Your task to perform on an android device: make emails show in primary in the gmail app Image 0: 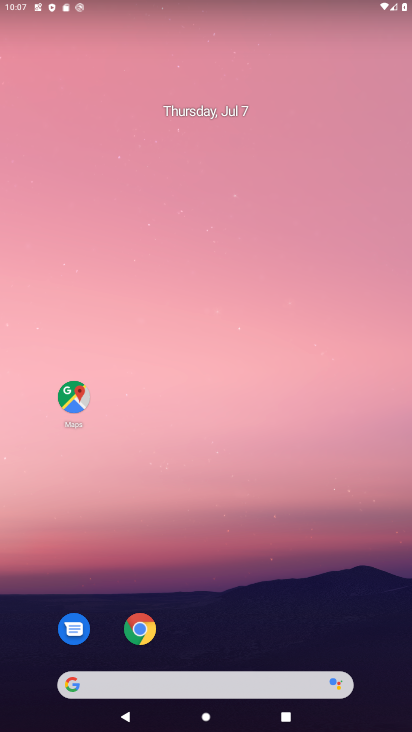
Step 0: drag from (211, 636) to (394, 0)
Your task to perform on an android device: make emails show in primary in the gmail app Image 1: 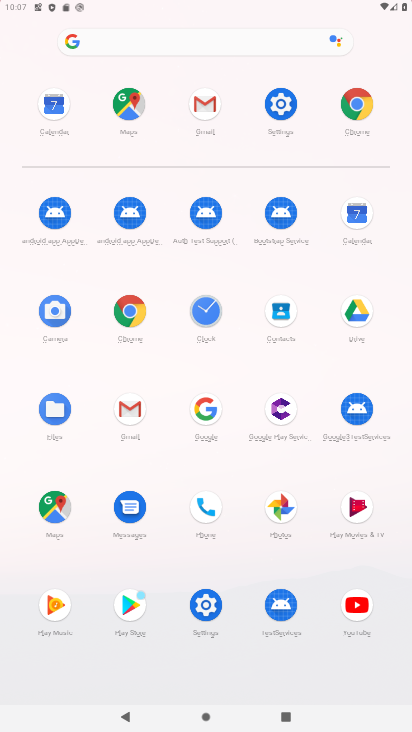
Step 1: click (144, 425)
Your task to perform on an android device: make emails show in primary in the gmail app Image 2: 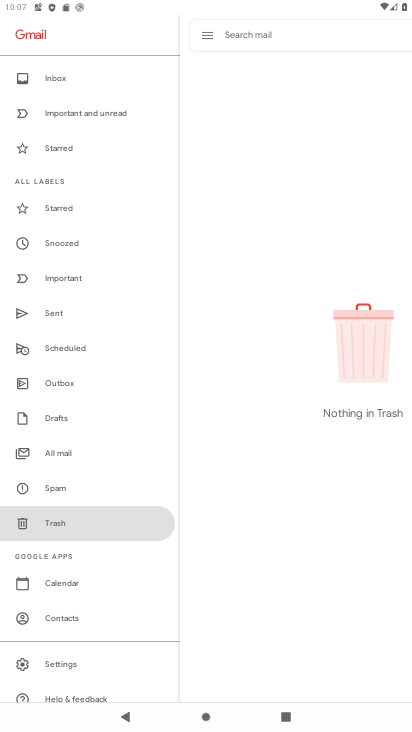
Step 2: click (67, 654)
Your task to perform on an android device: make emails show in primary in the gmail app Image 3: 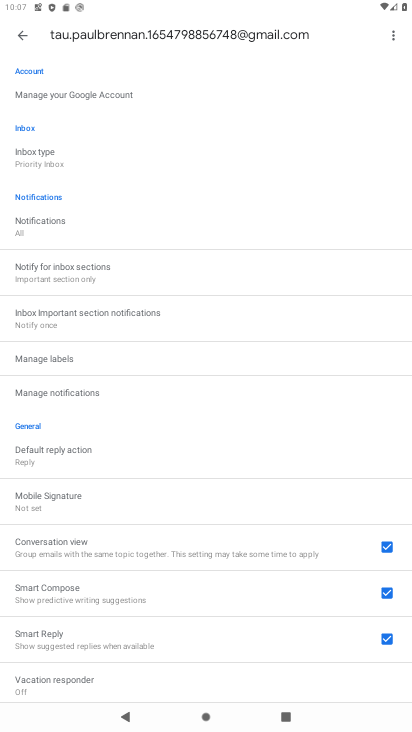
Step 3: click (34, 160)
Your task to perform on an android device: make emails show in primary in the gmail app Image 4: 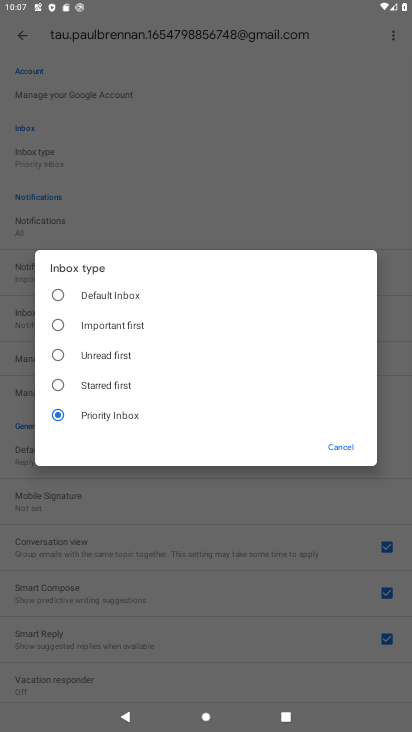
Step 4: click (109, 291)
Your task to perform on an android device: make emails show in primary in the gmail app Image 5: 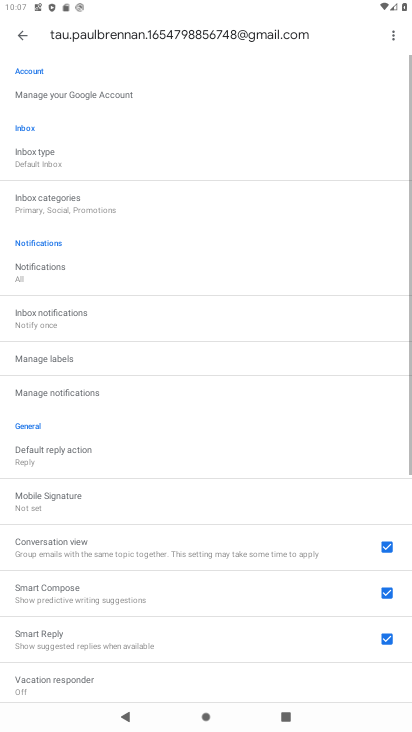
Step 5: click (17, 30)
Your task to perform on an android device: make emails show in primary in the gmail app Image 6: 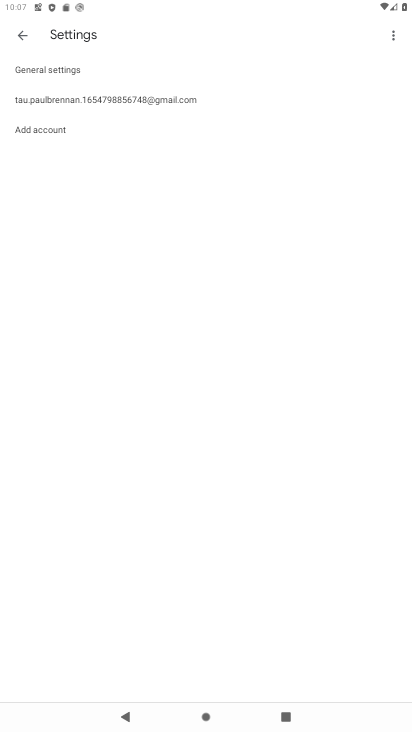
Step 6: click (21, 28)
Your task to perform on an android device: make emails show in primary in the gmail app Image 7: 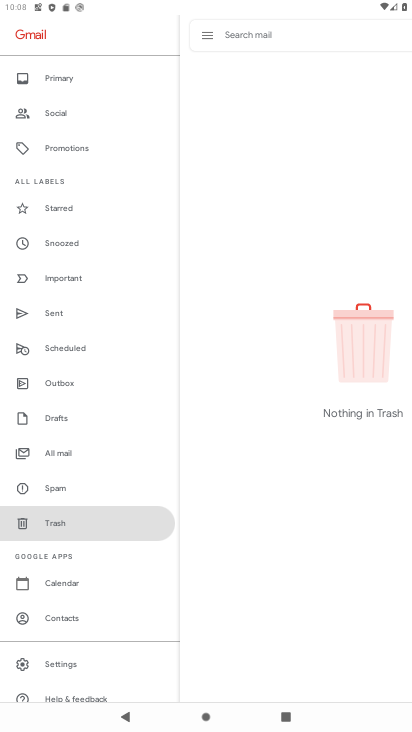
Step 7: click (44, 76)
Your task to perform on an android device: make emails show in primary in the gmail app Image 8: 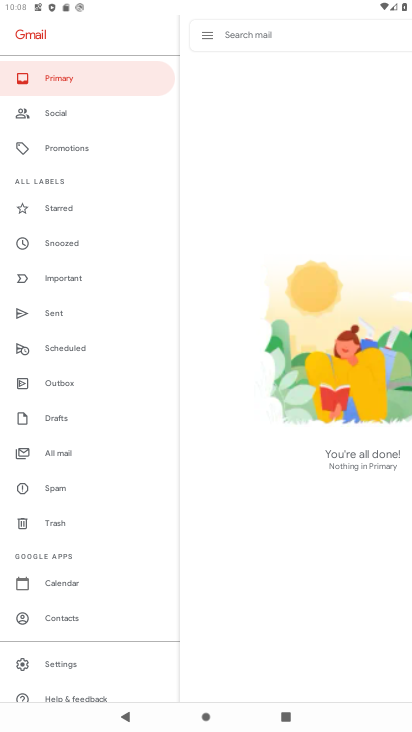
Step 8: task complete